Your task to perform on an android device: Open the web browser Image 0: 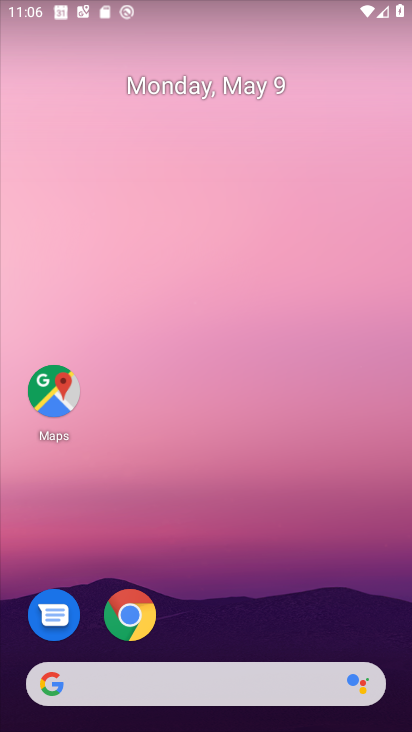
Step 0: drag from (324, 701) to (207, 197)
Your task to perform on an android device: Open the web browser Image 1: 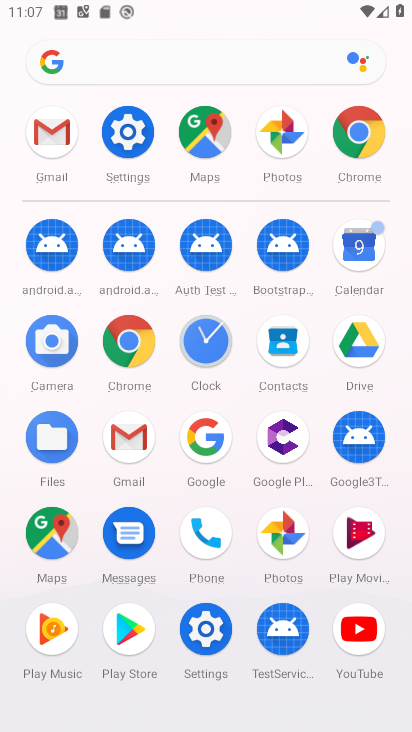
Step 1: click (345, 134)
Your task to perform on an android device: Open the web browser Image 2: 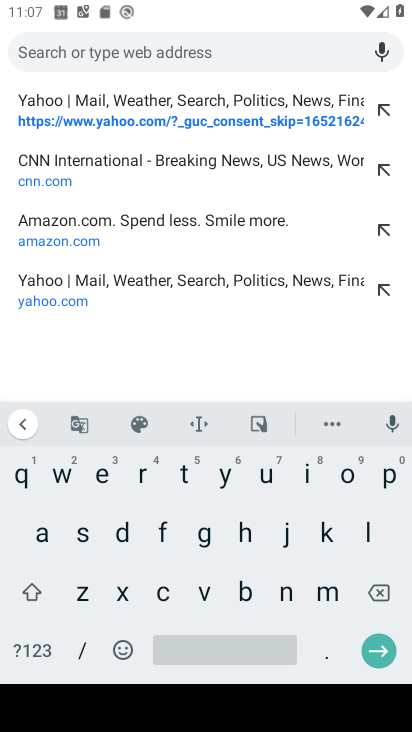
Step 2: task complete